Your task to perform on an android device: Go to Yahoo.com Image 0: 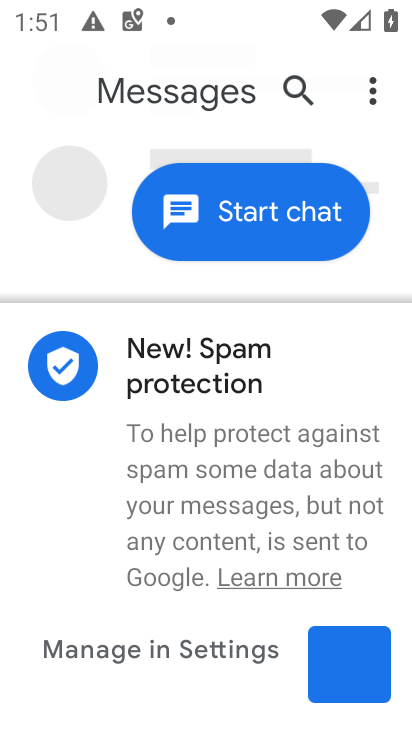
Step 0: press home button
Your task to perform on an android device: Go to Yahoo.com Image 1: 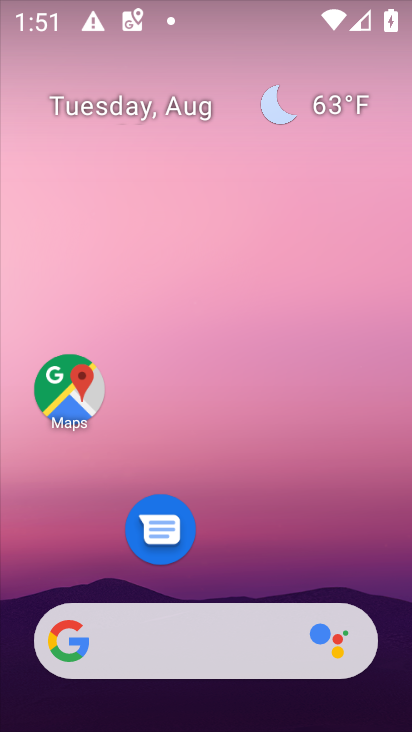
Step 1: drag from (273, 598) to (273, 290)
Your task to perform on an android device: Go to Yahoo.com Image 2: 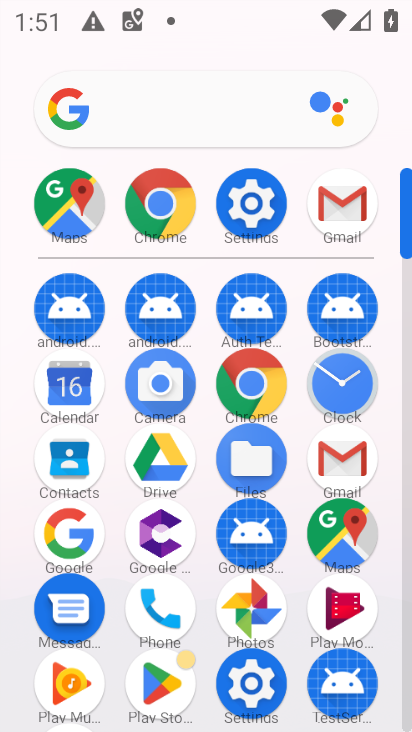
Step 2: click (139, 232)
Your task to perform on an android device: Go to Yahoo.com Image 3: 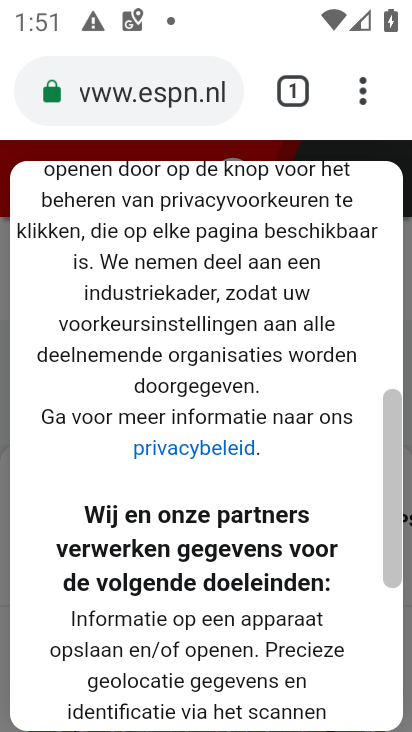
Step 3: click (103, 94)
Your task to perform on an android device: Go to Yahoo.com Image 4: 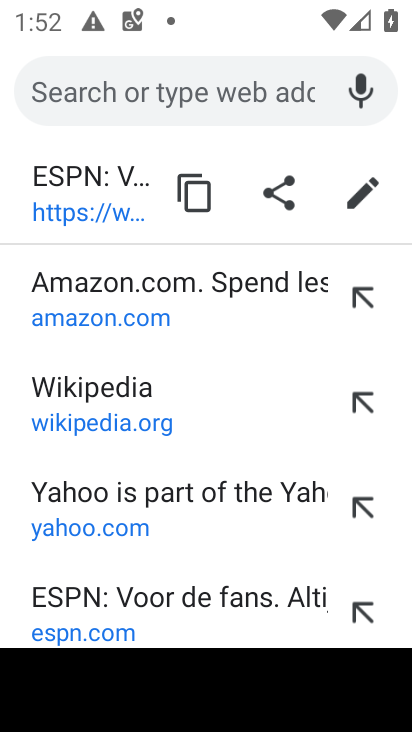
Step 4: click (224, 530)
Your task to perform on an android device: Go to Yahoo.com Image 5: 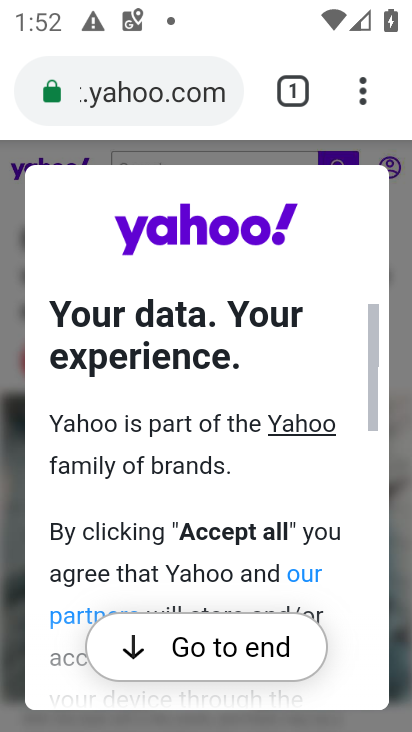
Step 5: task complete